Your task to perform on an android device: search for starred emails in the gmail app Image 0: 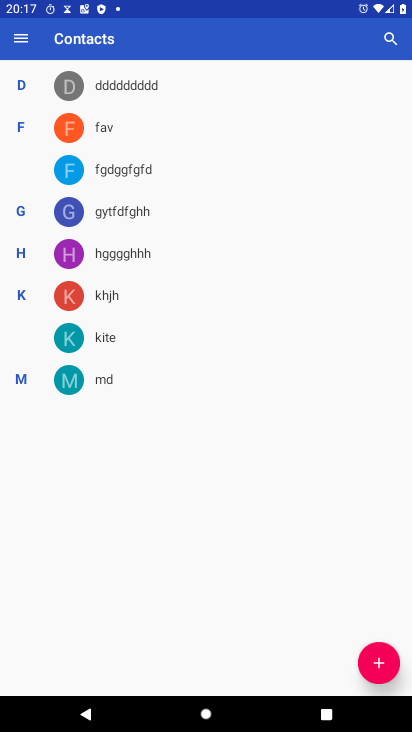
Step 0: press home button
Your task to perform on an android device: search for starred emails in the gmail app Image 1: 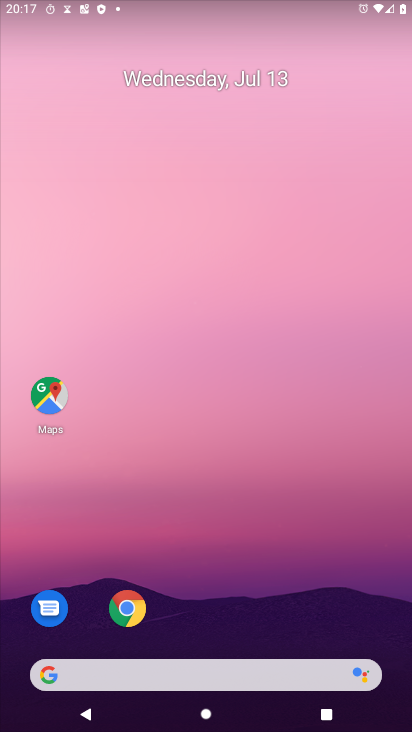
Step 1: drag from (221, 634) to (247, 114)
Your task to perform on an android device: search for starred emails in the gmail app Image 2: 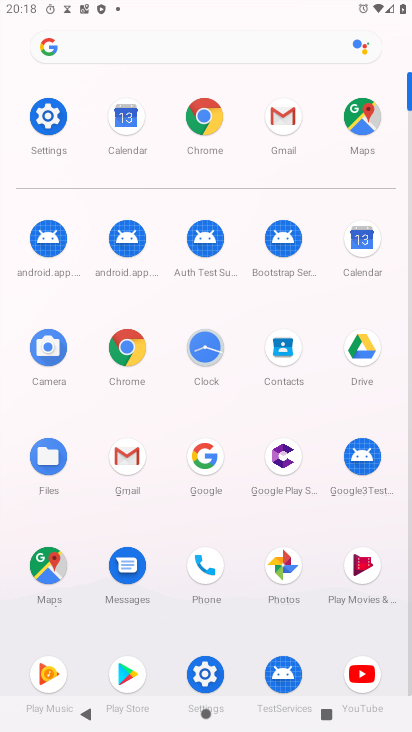
Step 2: click (290, 124)
Your task to perform on an android device: search for starred emails in the gmail app Image 3: 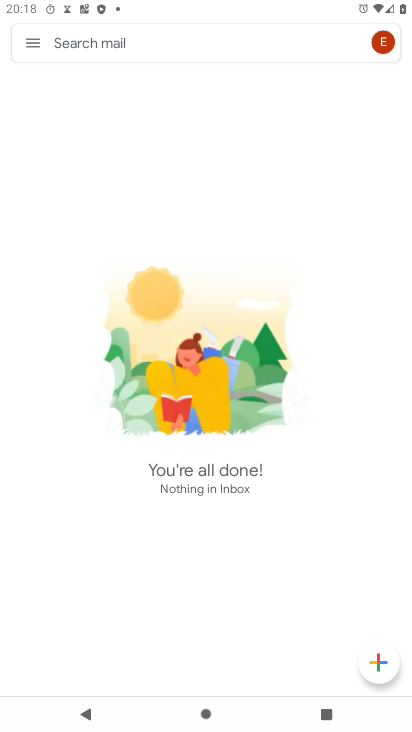
Step 3: click (22, 47)
Your task to perform on an android device: search for starred emails in the gmail app Image 4: 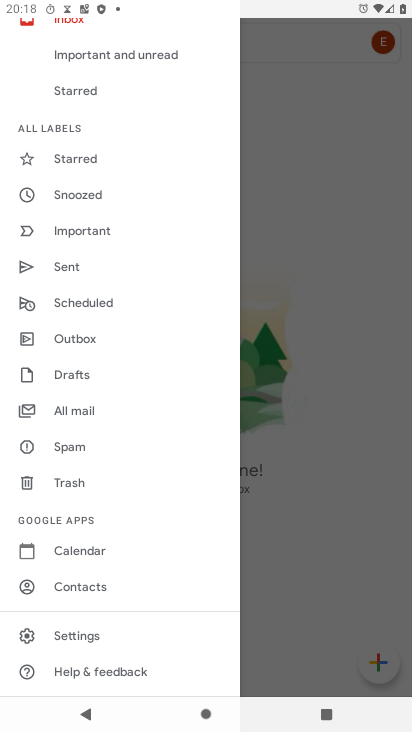
Step 4: click (76, 149)
Your task to perform on an android device: search for starred emails in the gmail app Image 5: 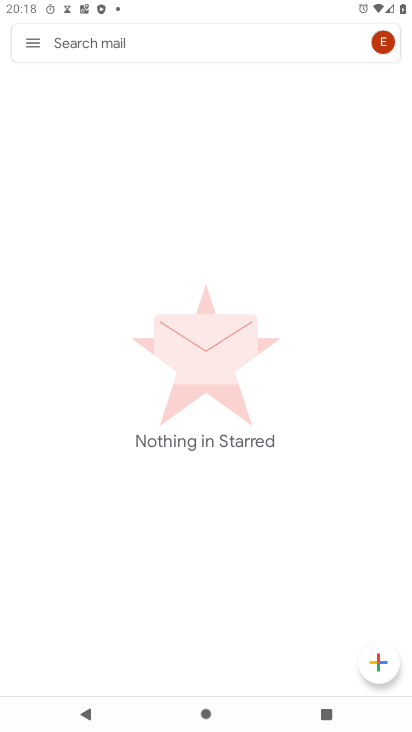
Step 5: task complete